Your task to perform on an android device: turn notification dots on Image 0: 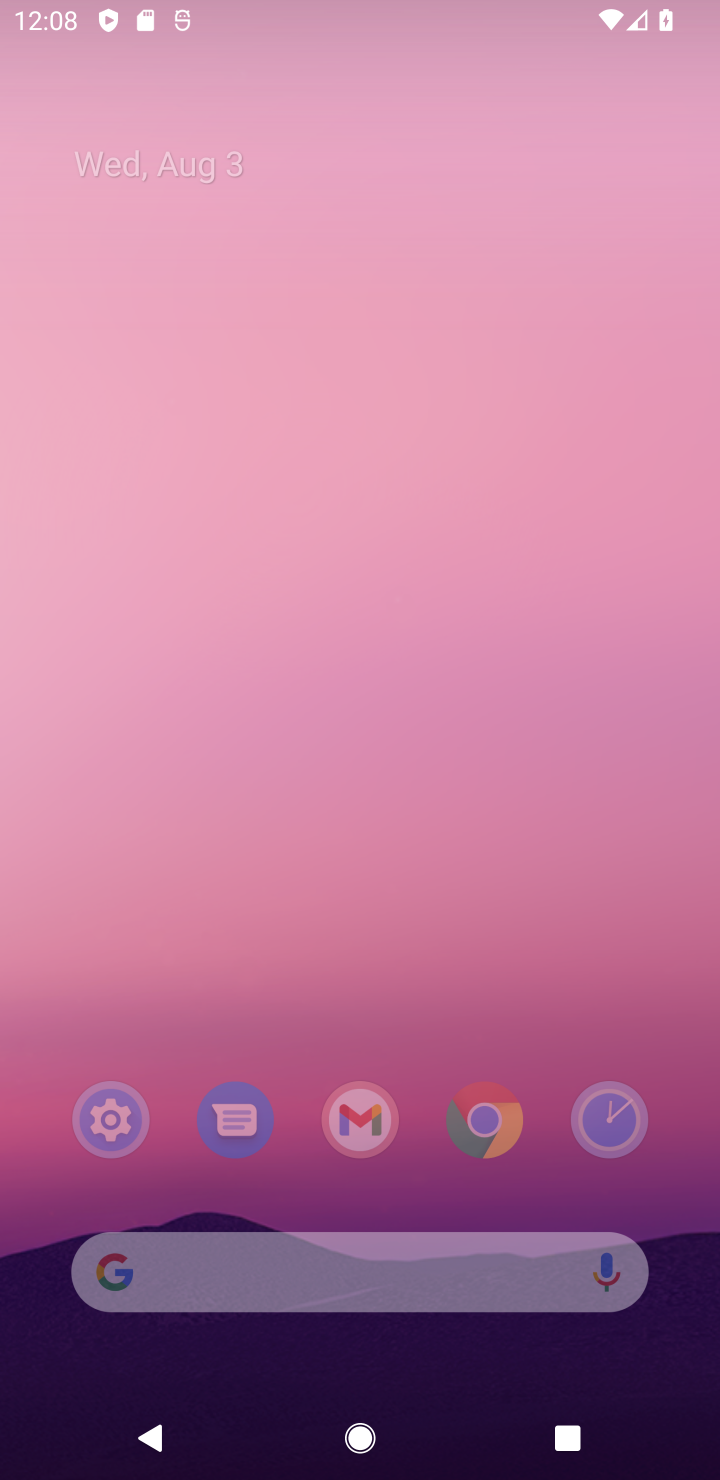
Step 0: press home button
Your task to perform on an android device: turn notification dots on Image 1: 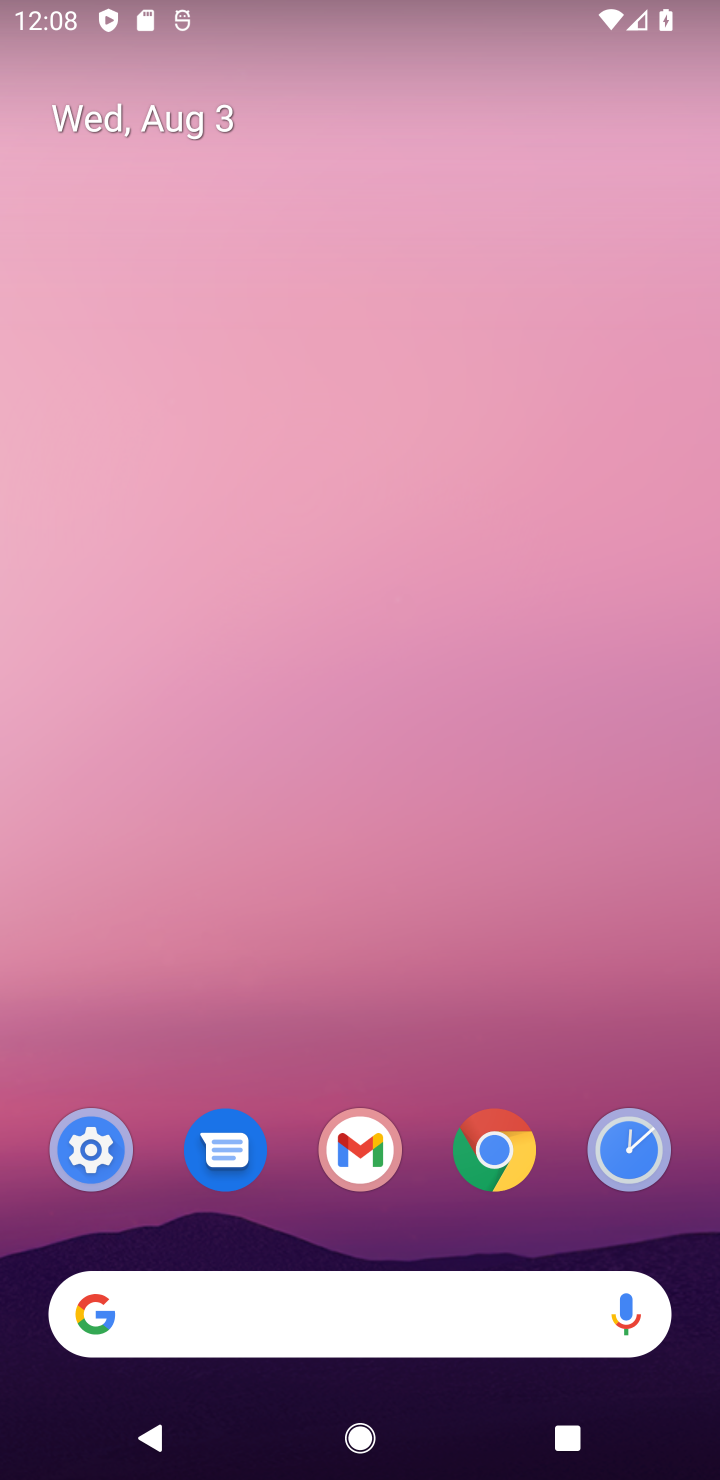
Step 1: drag from (560, 1035) to (591, 328)
Your task to perform on an android device: turn notification dots on Image 2: 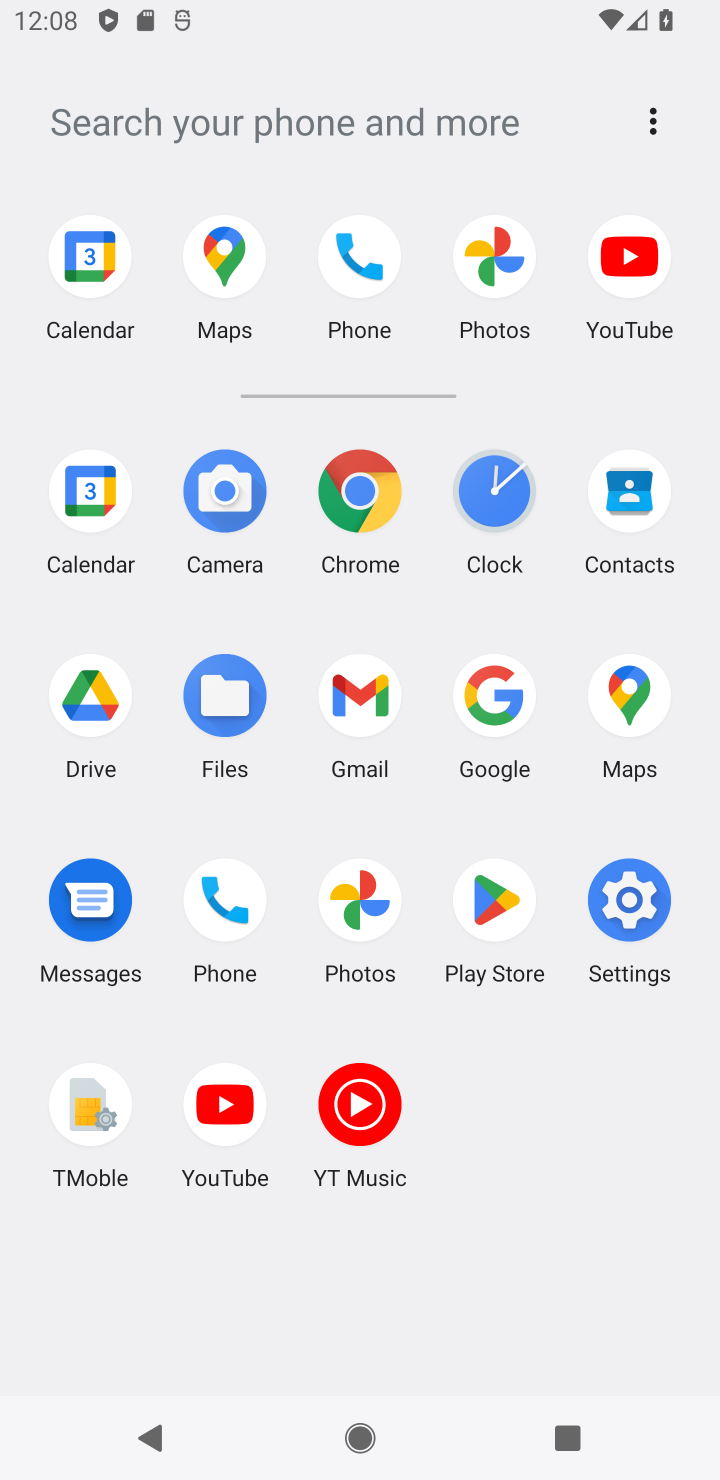
Step 2: click (613, 915)
Your task to perform on an android device: turn notification dots on Image 3: 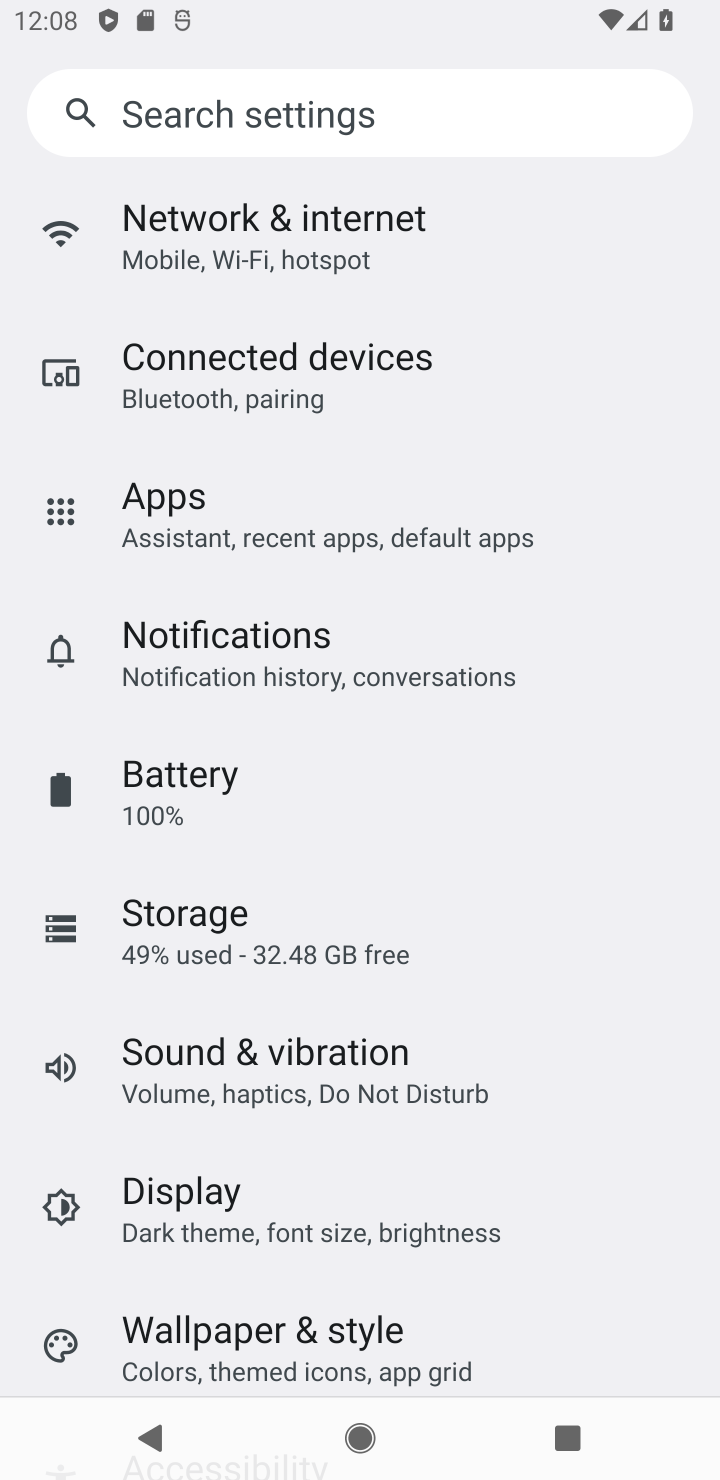
Step 3: drag from (619, 1233) to (614, 1010)
Your task to perform on an android device: turn notification dots on Image 4: 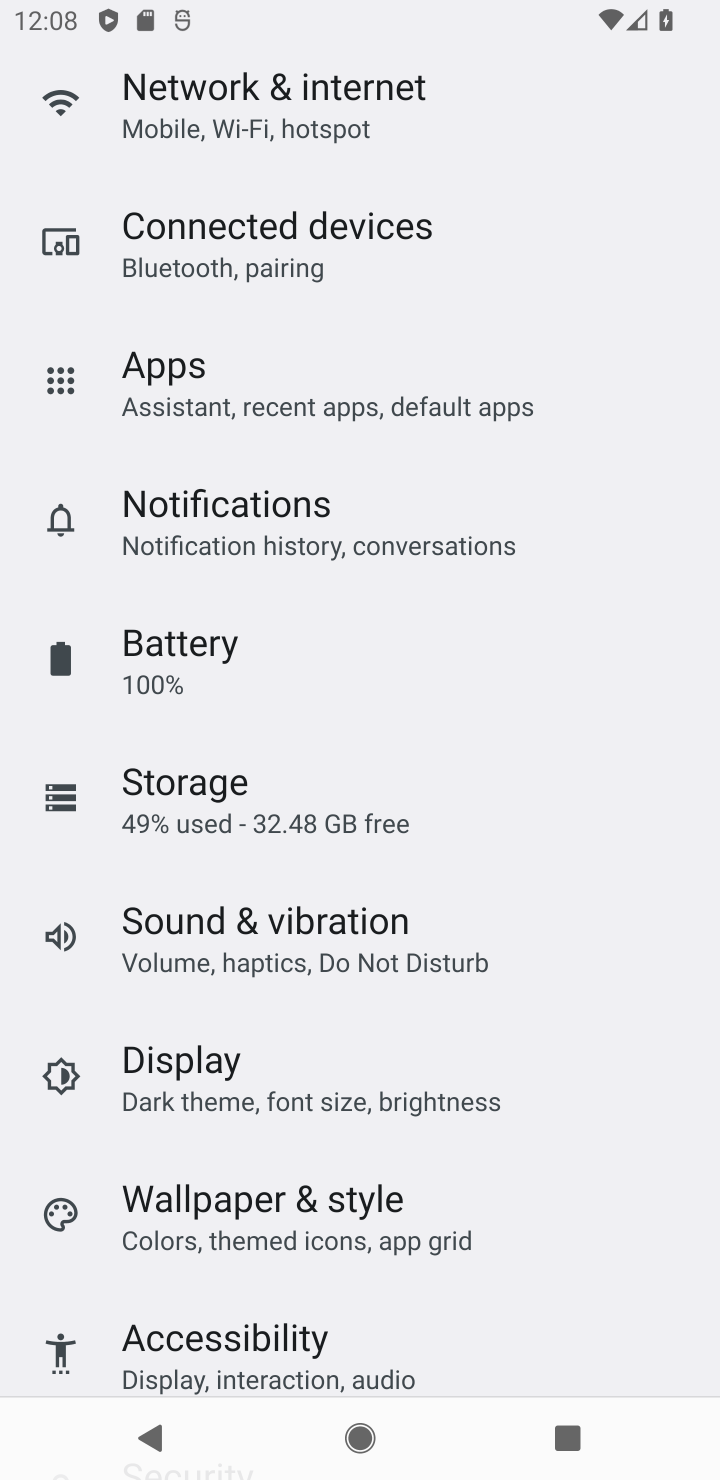
Step 4: drag from (577, 1234) to (588, 963)
Your task to perform on an android device: turn notification dots on Image 5: 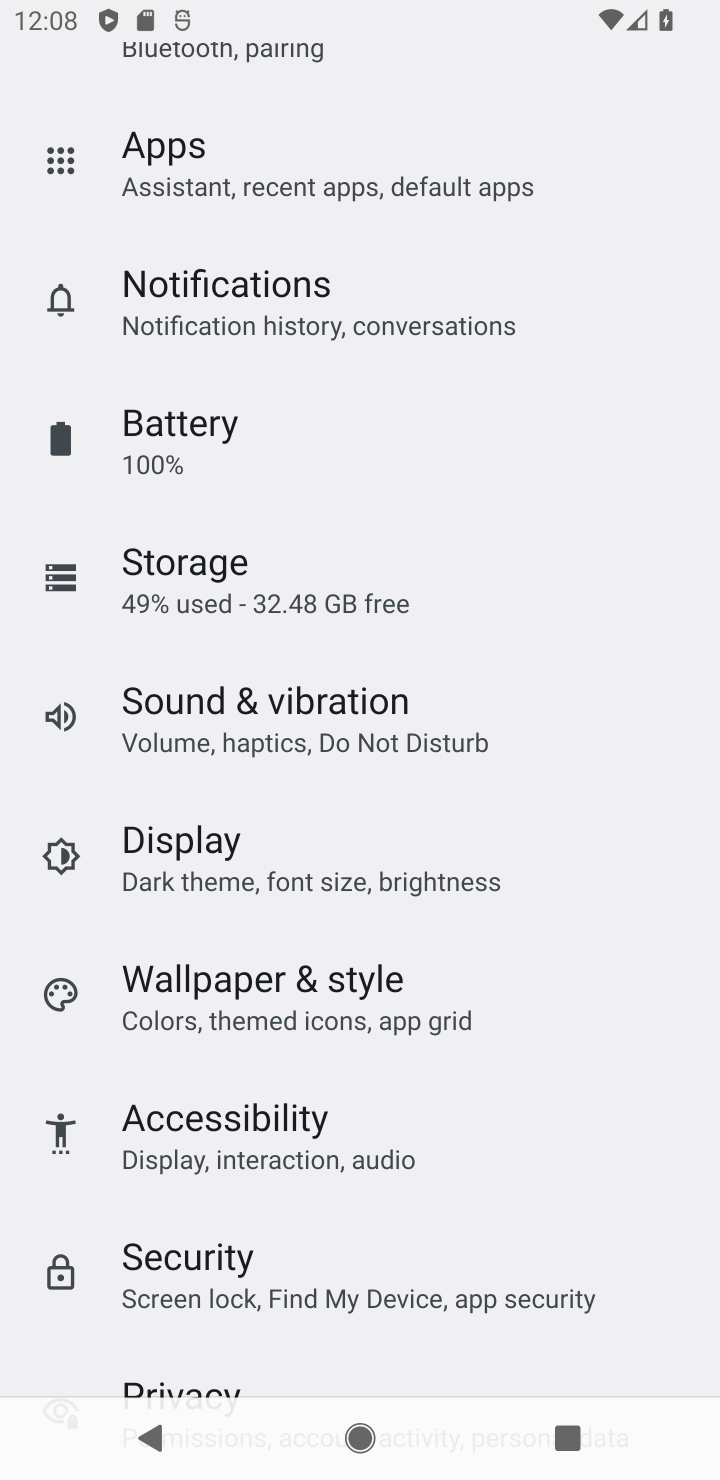
Step 5: drag from (621, 1248) to (626, 971)
Your task to perform on an android device: turn notification dots on Image 6: 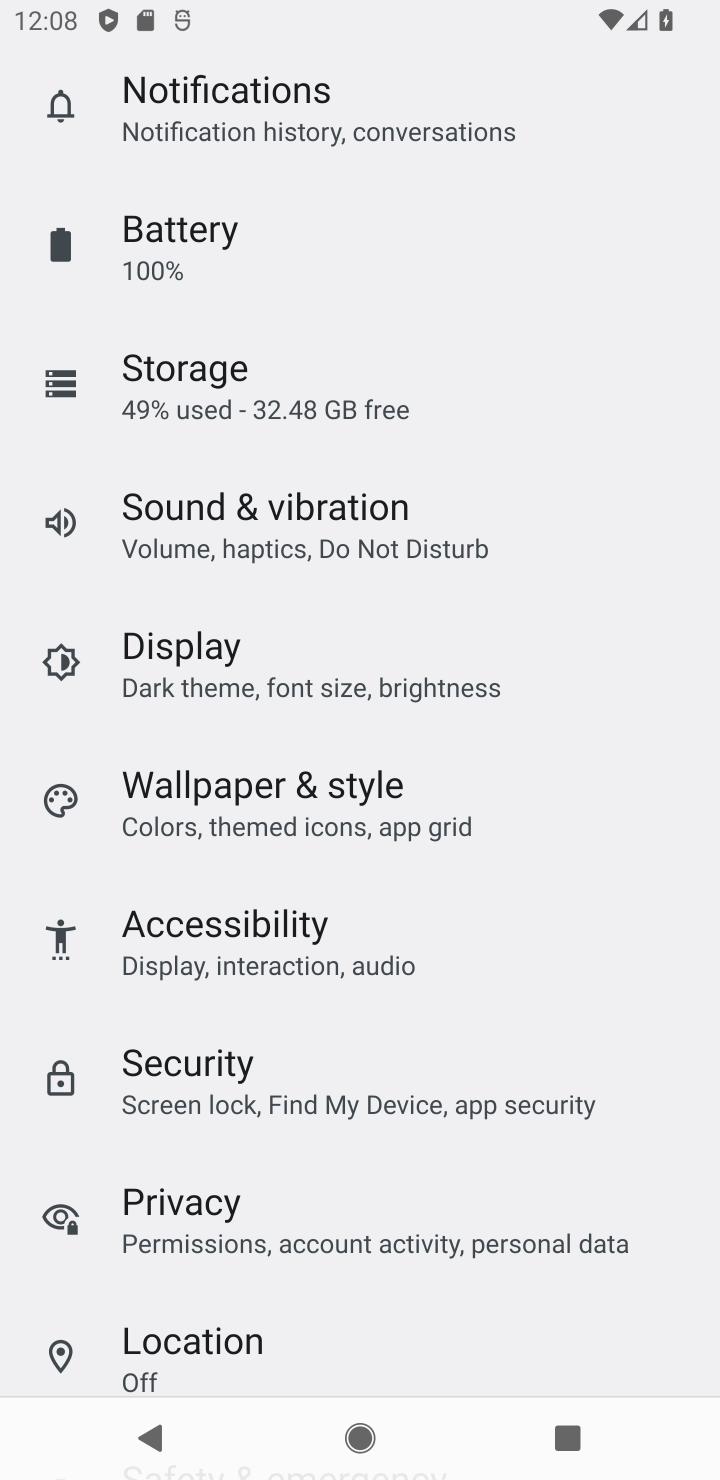
Step 6: drag from (632, 1187) to (628, 846)
Your task to perform on an android device: turn notification dots on Image 7: 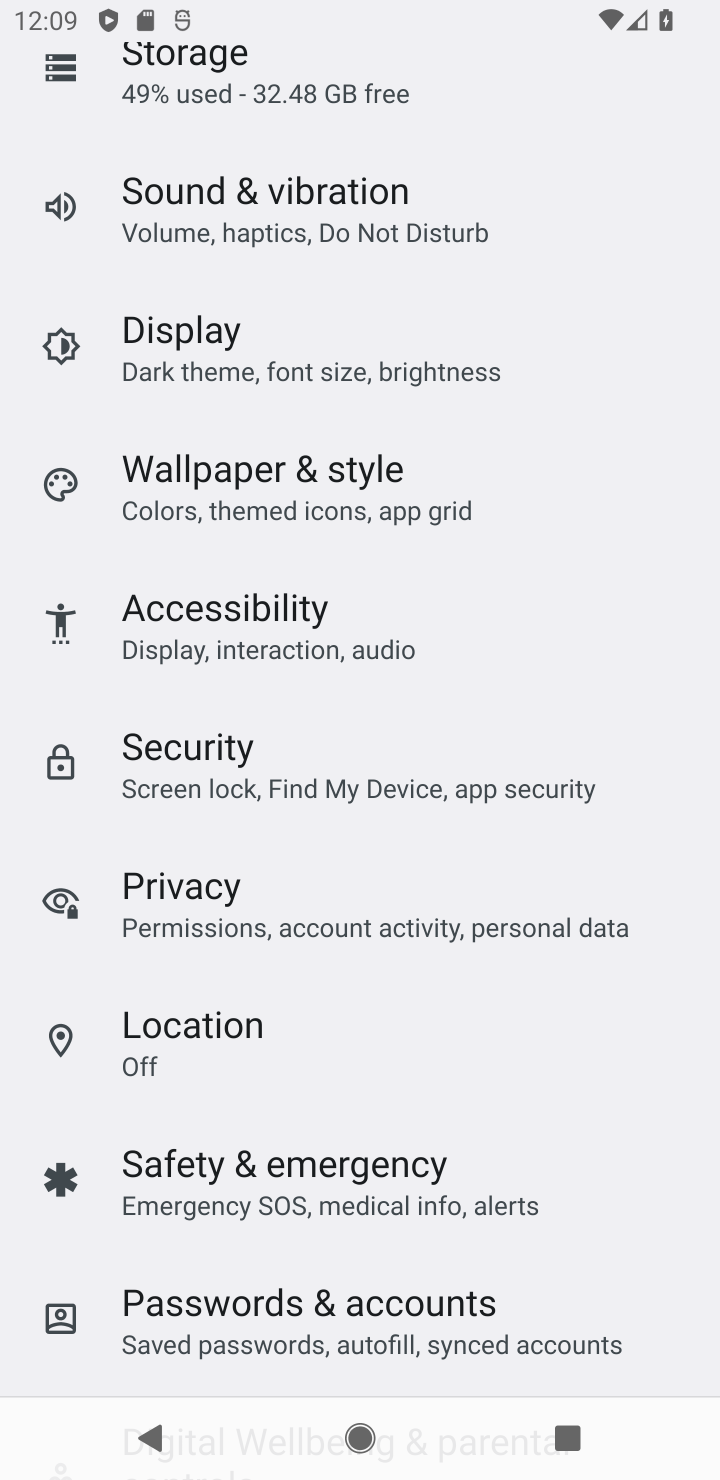
Step 7: drag from (619, 1255) to (619, 917)
Your task to perform on an android device: turn notification dots on Image 8: 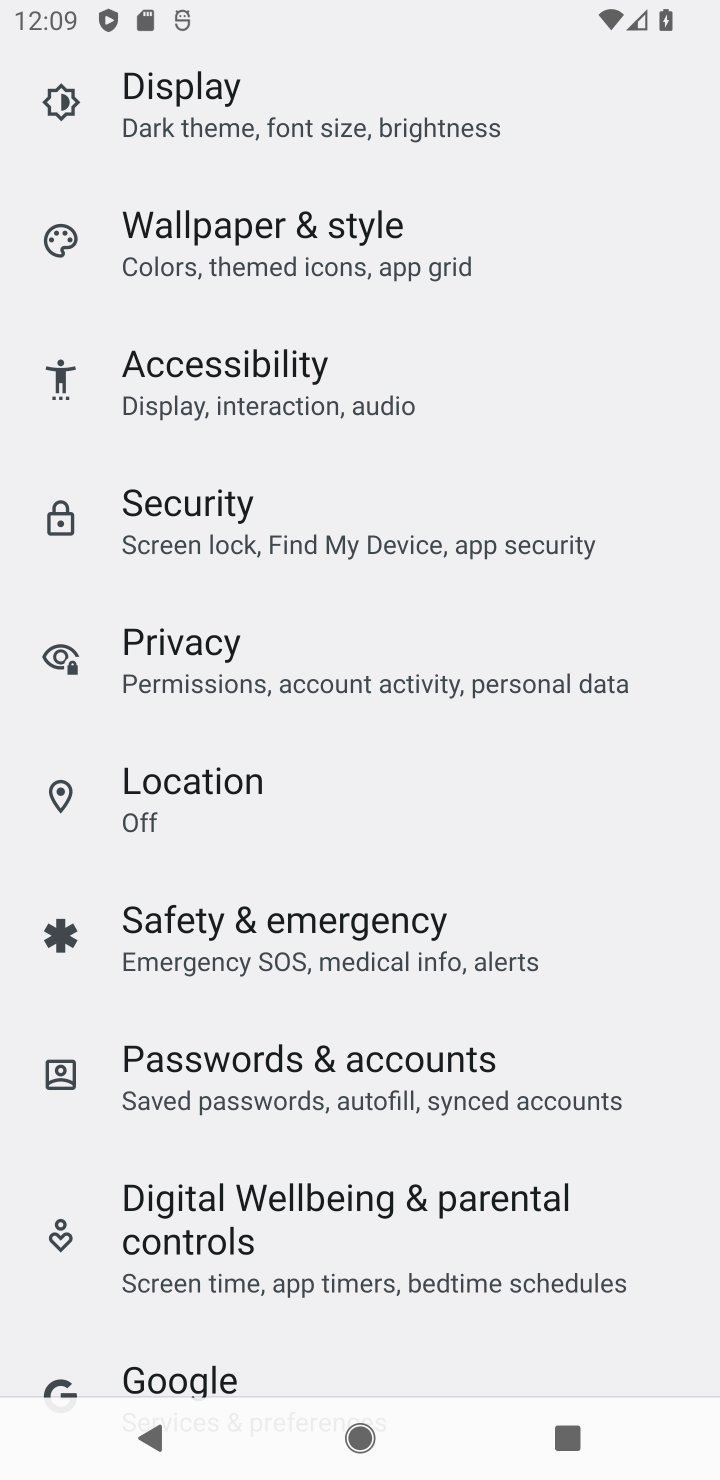
Step 8: drag from (611, 1233) to (616, 1009)
Your task to perform on an android device: turn notification dots on Image 9: 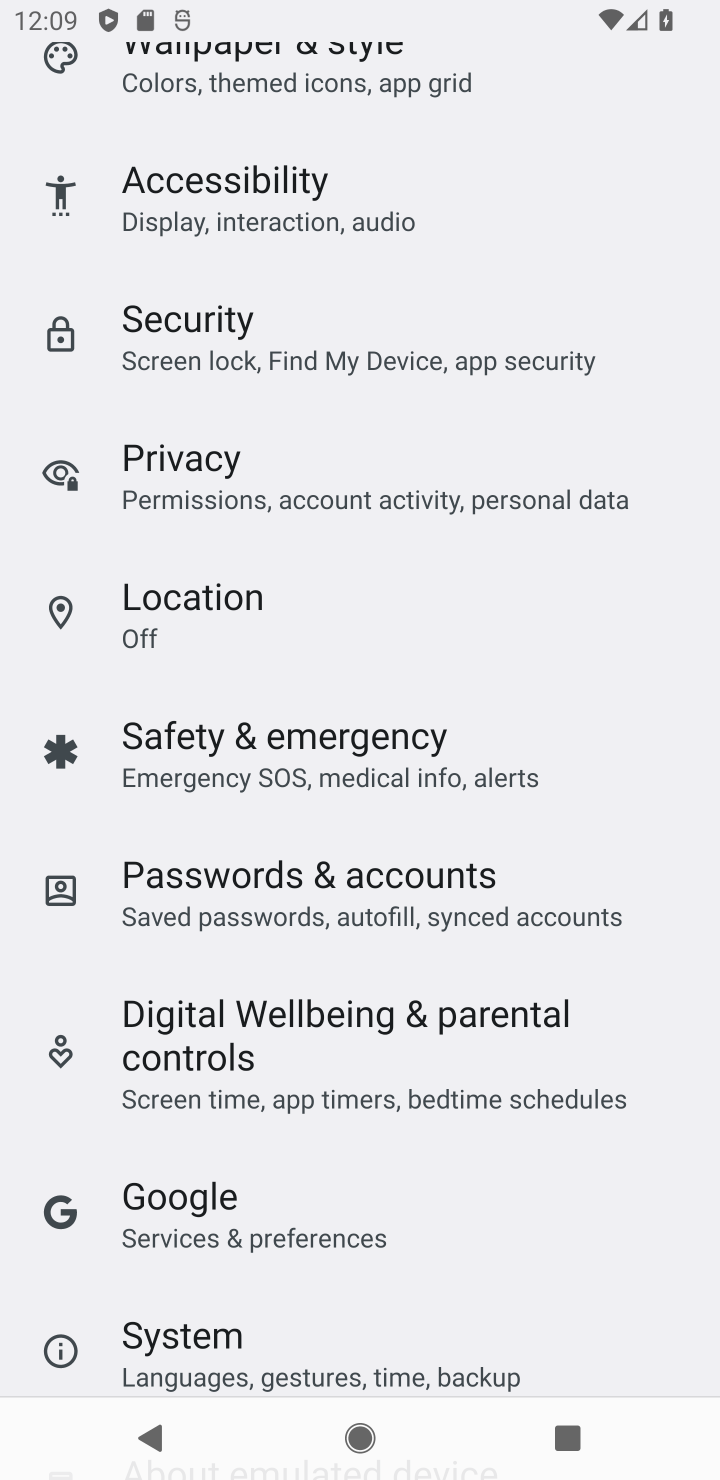
Step 9: drag from (642, 738) to (602, 1038)
Your task to perform on an android device: turn notification dots on Image 10: 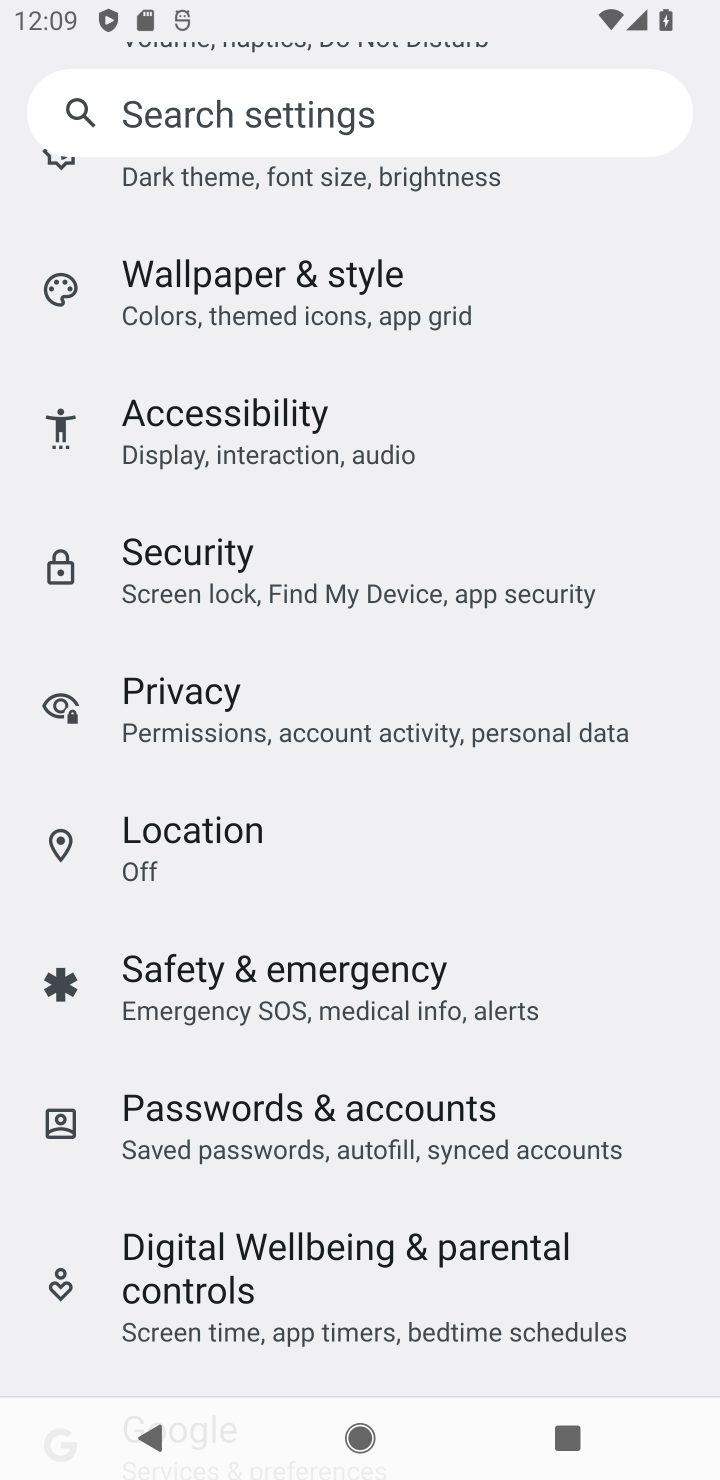
Step 10: drag from (617, 753) to (619, 1012)
Your task to perform on an android device: turn notification dots on Image 11: 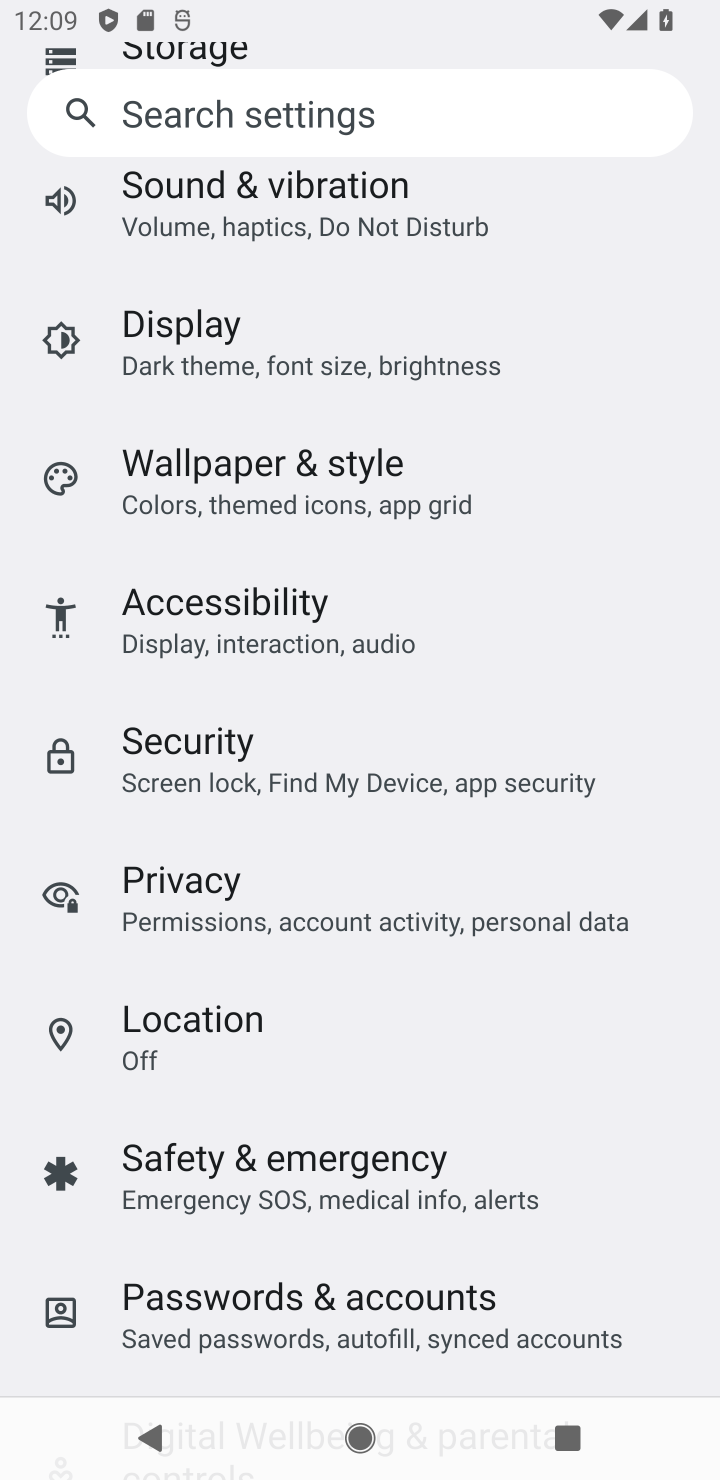
Step 11: drag from (619, 606) to (622, 880)
Your task to perform on an android device: turn notification dots on Image 12: 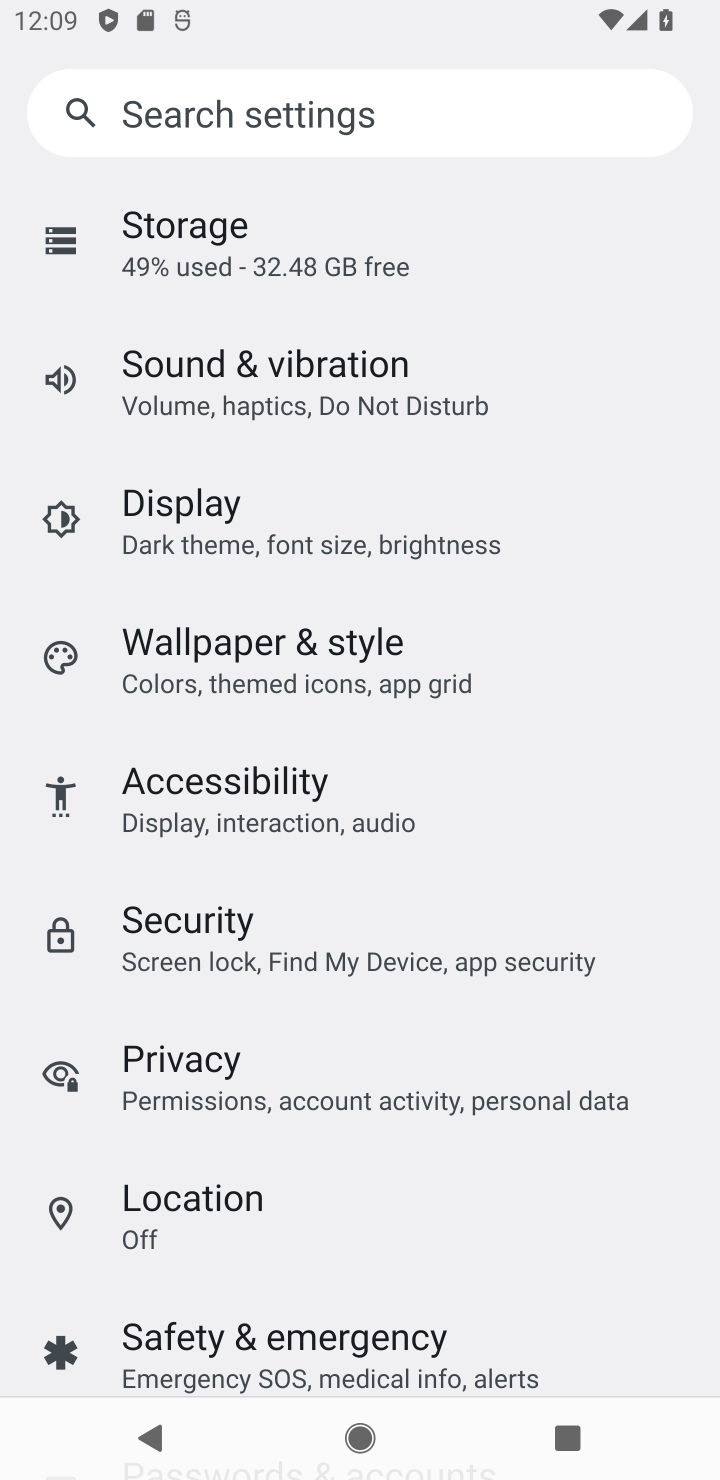
Step 12: drag from (598, 553) to (592, 826)
Your task to perform on an android device: turn notification dots on Image 13: 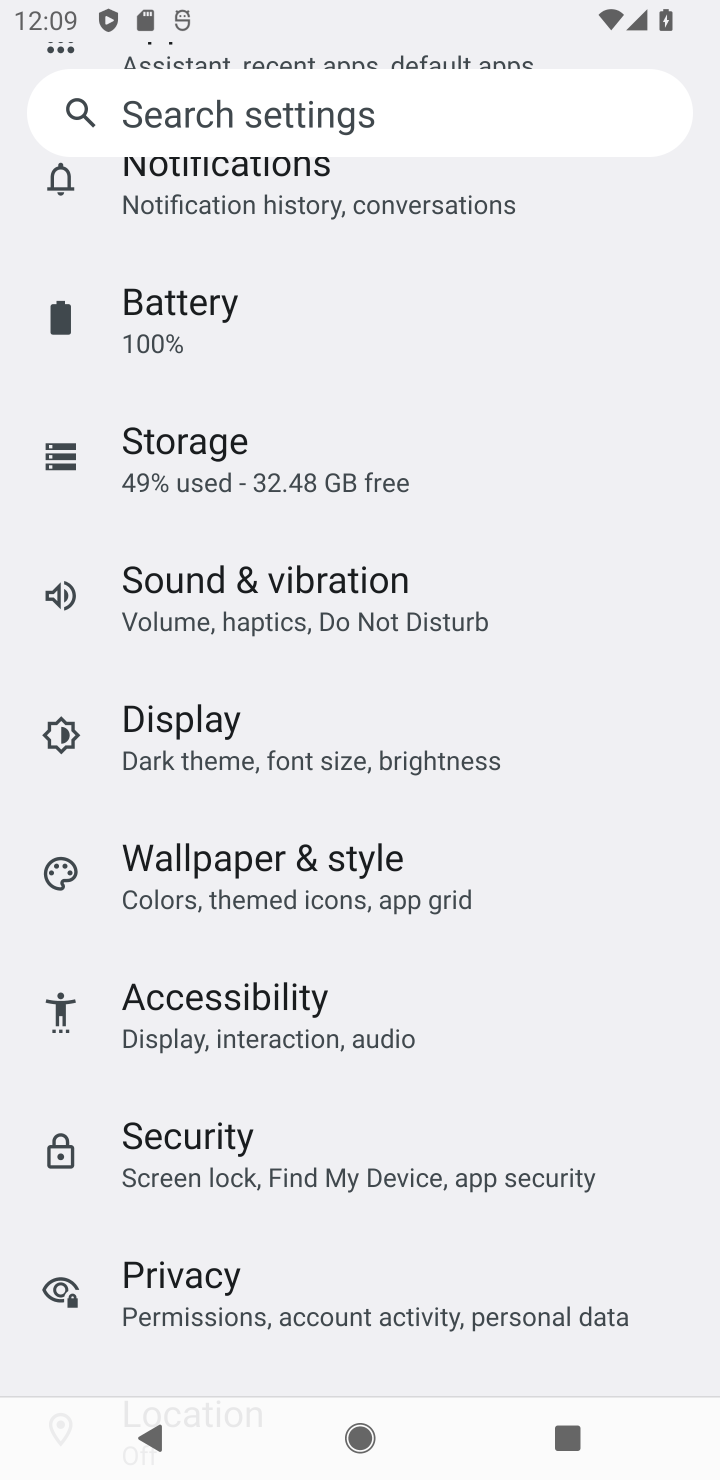
Step 13: drag from (592, 543) to (592, 839)
Your task to perform on an android device: turn notification dots on Image 14: 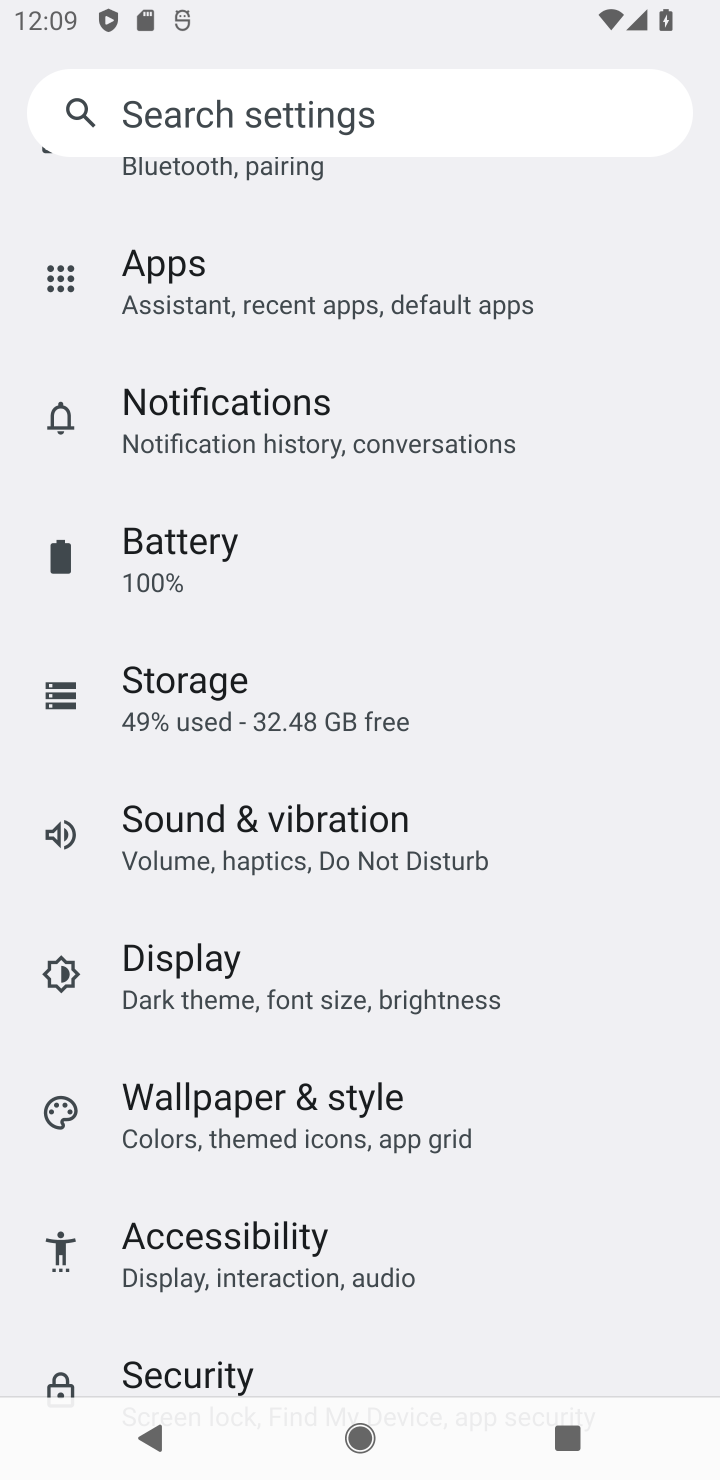
Step 14: drag from (561, 526) to (561, 905)
Your task to perform on an android device: turn notification dots on Image 15: 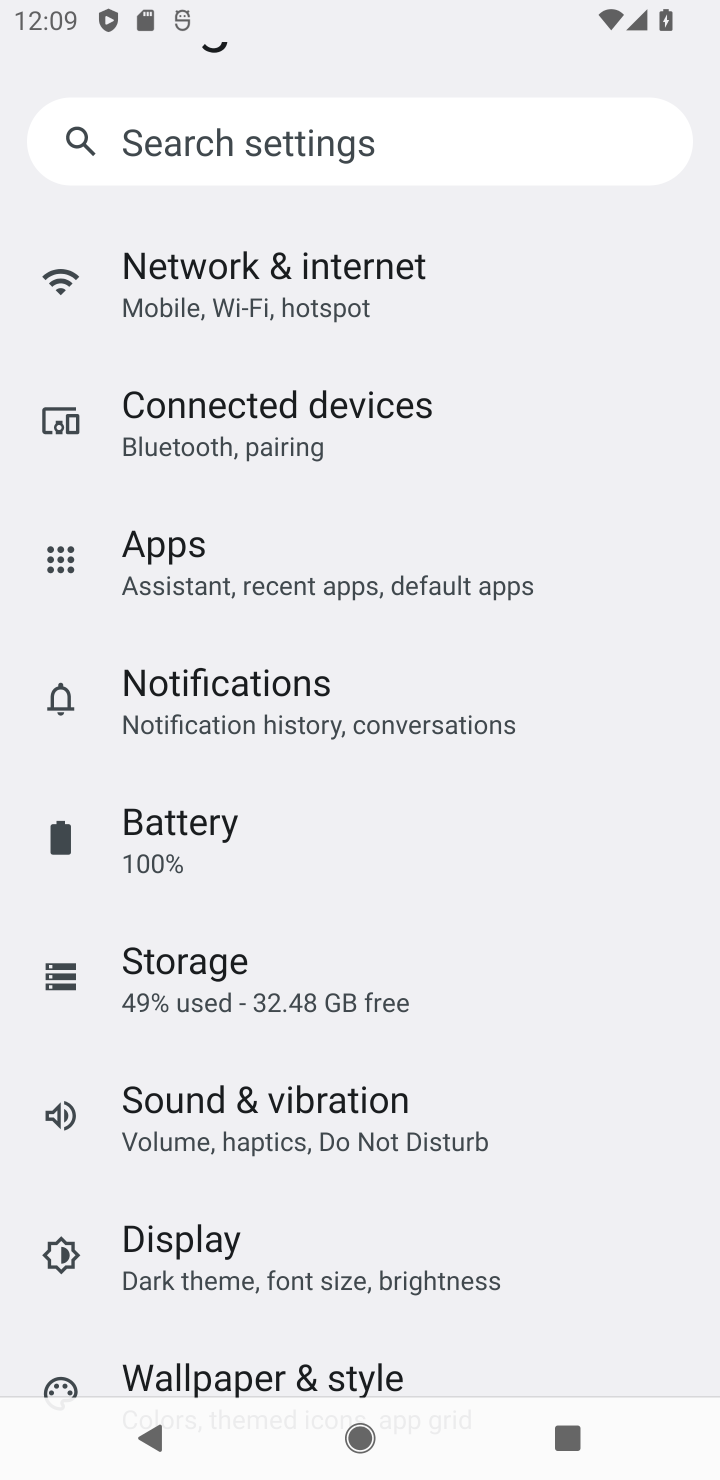
Step 15: click (532, 712)
Your task to perform on an android device: turn notification dots on Image 16: 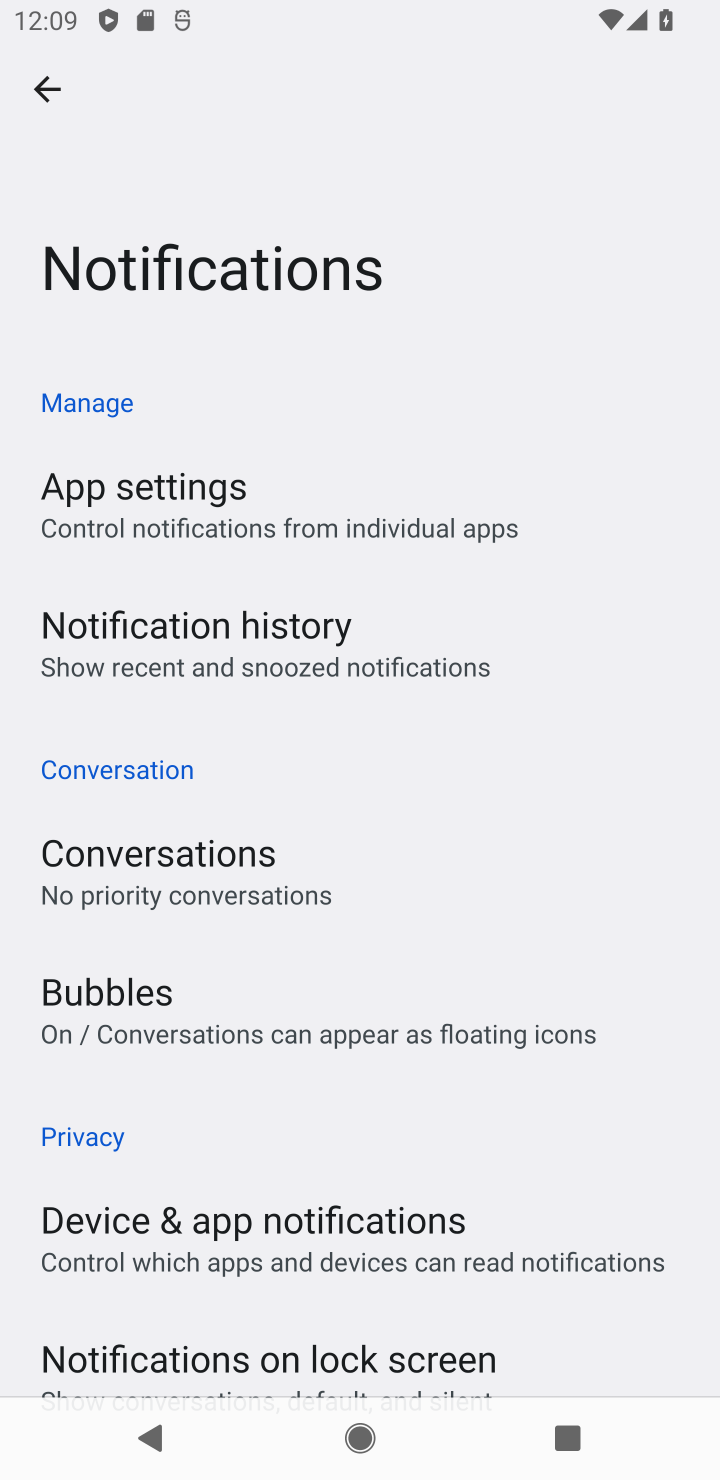
Step 16: drag from (578, 1151) to (582, 908)
Your task to perform on an android device: turn notification dots on Image 17: 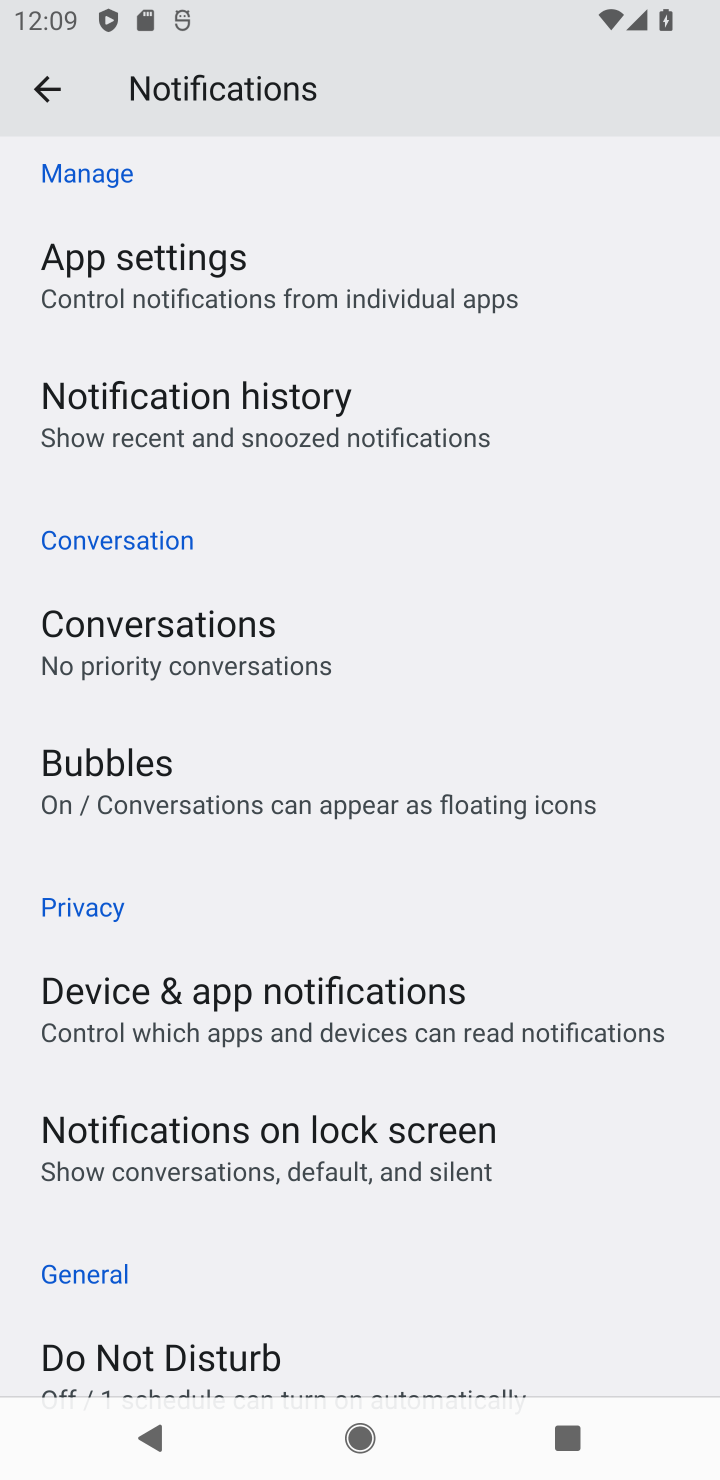
Step 17: drag from (582, 1220) to (589, 1000)
Your task to perform on an android device: turn notification dots on Image 18: 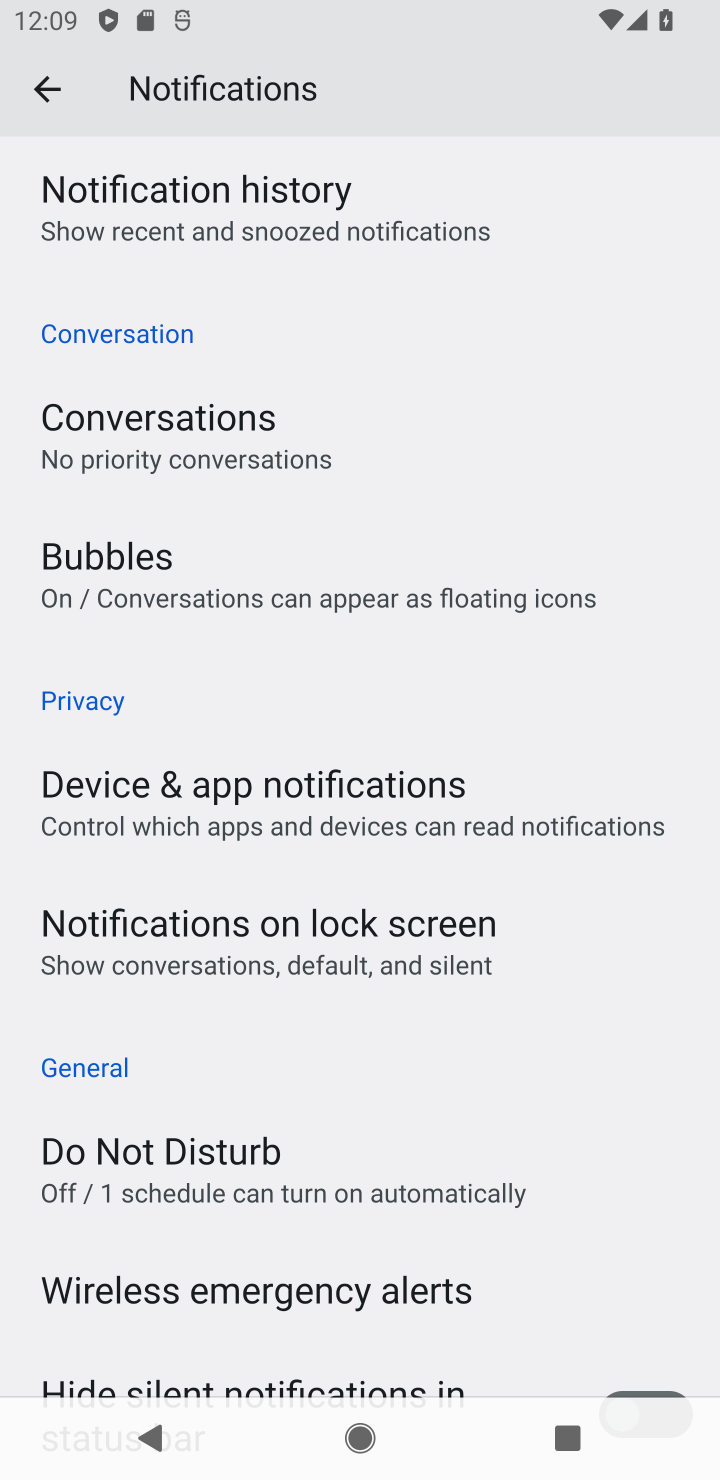
Step 18: drag from (565, 1175) to (565, 828)
Your task to perform on an android device: turn notification dots on Image 19: 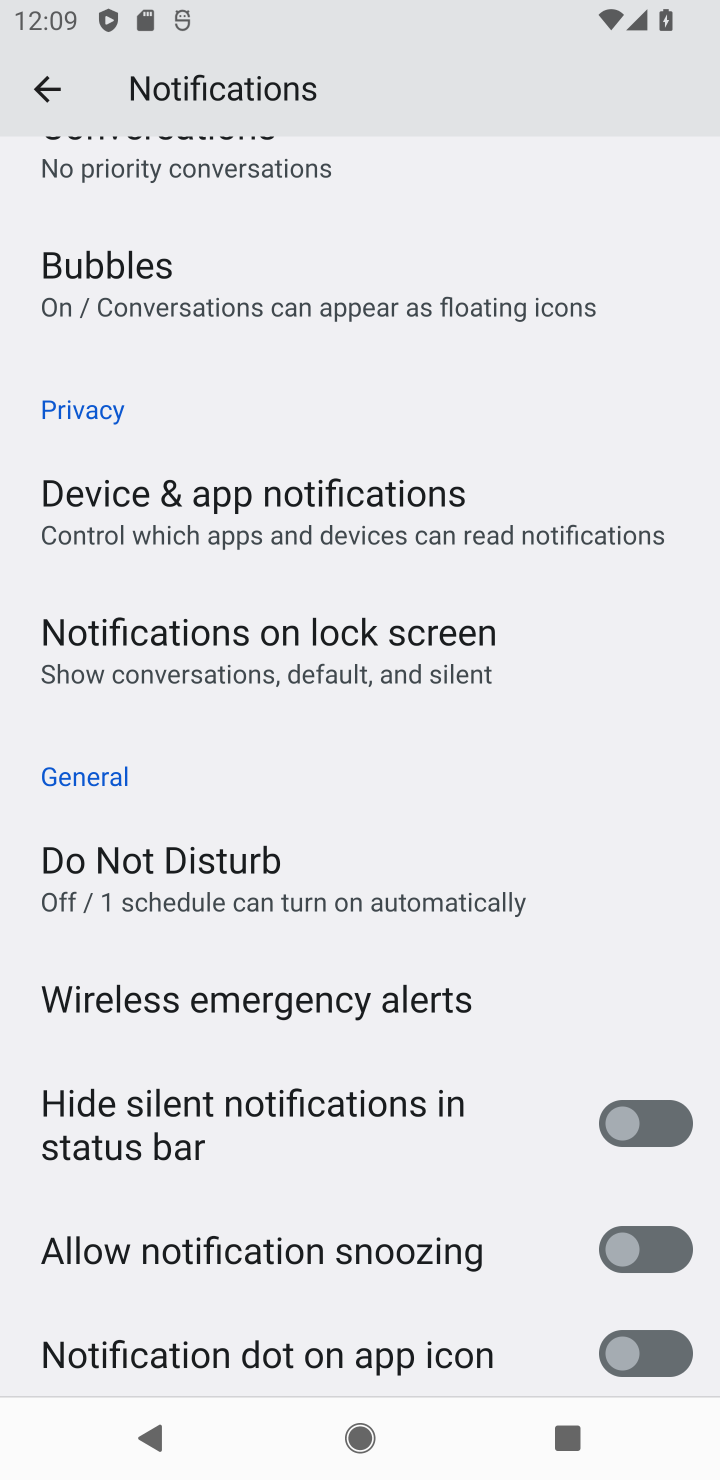
Step 19: drag from (528, 1255) to (534, 877)
Your task to perform on an android device: turn notification dots on Image 20: 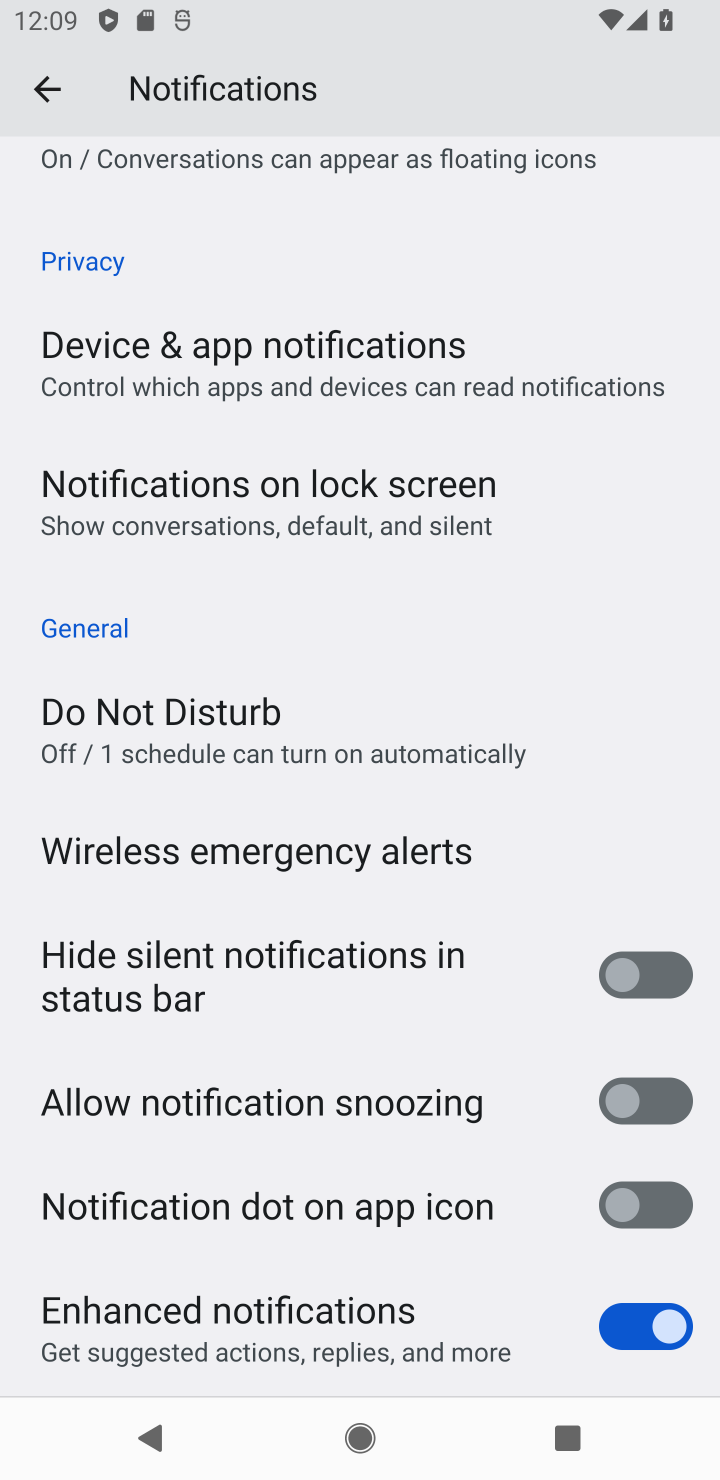
Step 20: click (645, 1213)
Your task to perform on an android device: turn notification dots on Image 21: 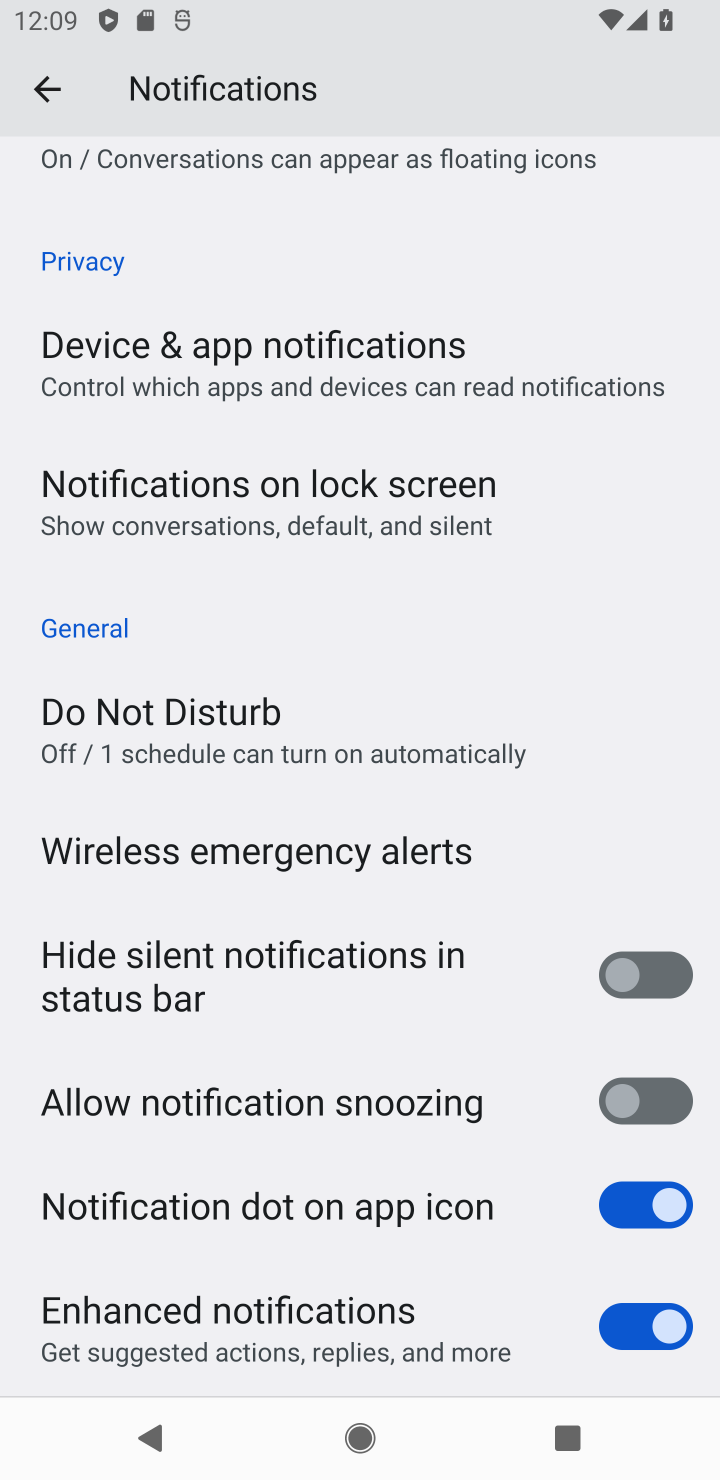
Step 21: task complete